Your task to perform on an android device: turn on priority inbox in the gmail app Image 0: 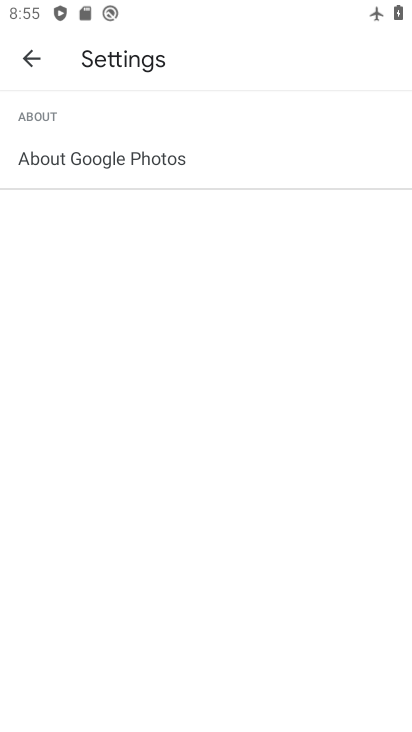
Step 0: press home button
Your task to perform on an android device: turn on priority inbox in the gmail app Image 1: 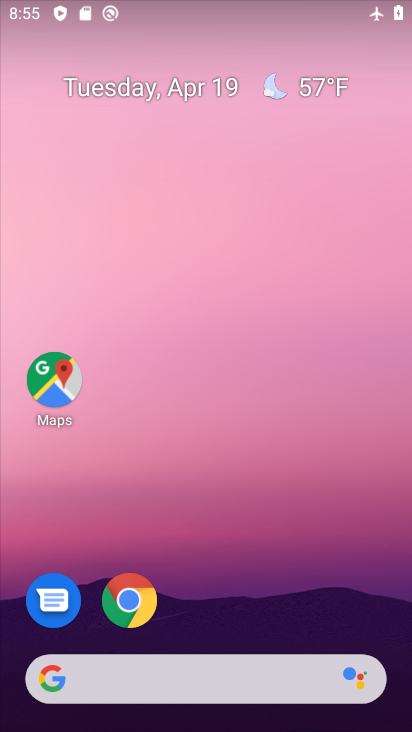
Step 1: drag from (336, 464) to (355, 92)
Your task to perform on an android device: turn on priority inbox in the gmail app Image 2: 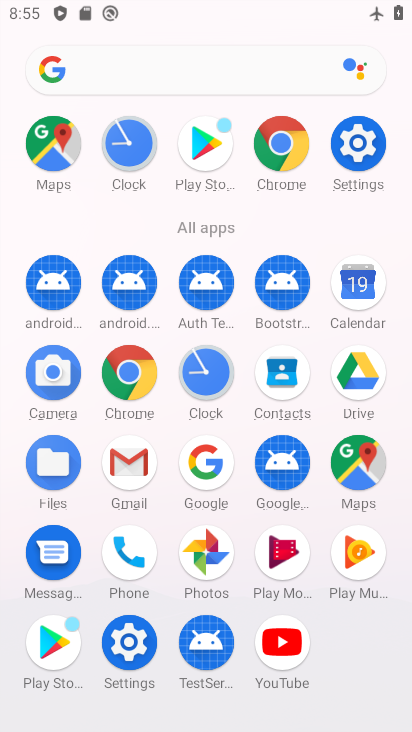
Step 2: click (118, 462)
Your task to perform on an android device: turn on priority inbox in the gmail app Image 3: 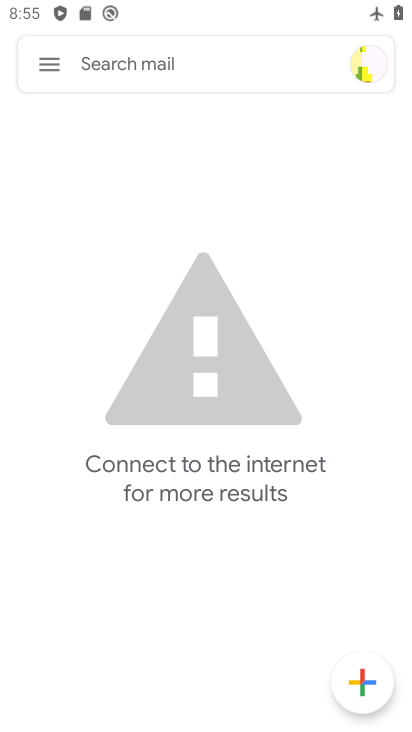
Step 3: click (44, 62)
Your task to perform on an android device: turn on priority inbox in the gmail app Image 4: 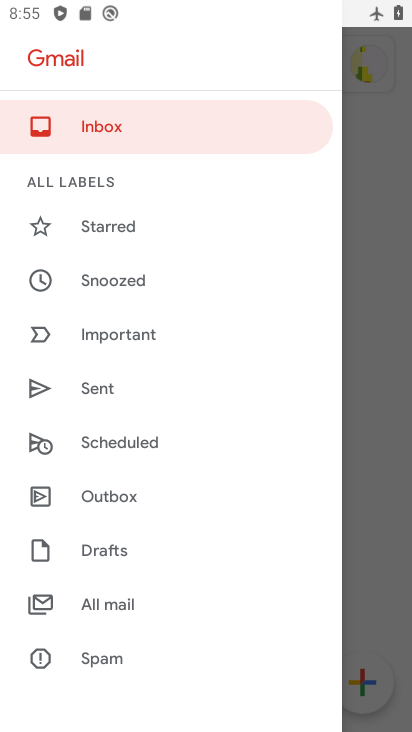
Step 4: drag from (278, 531) to (273, 324)
Your task to perform on an android device: turn on priority inbox in the gmail app Image 5: 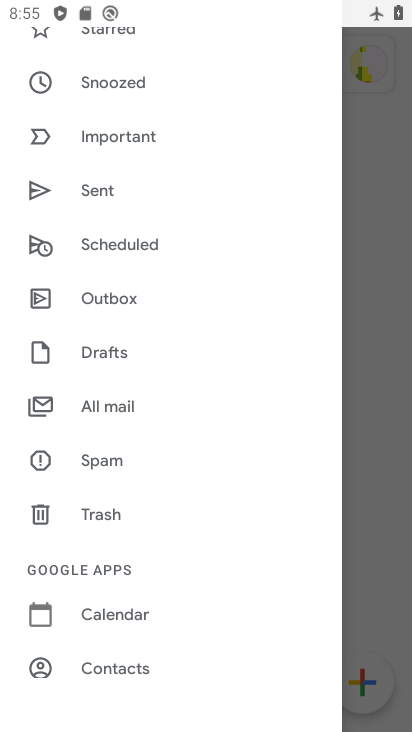
Step 5: drag from (257, 536) to (275, 287)
Your task to perform on an android device: turn on priority inbox in the gmail app Image 6: 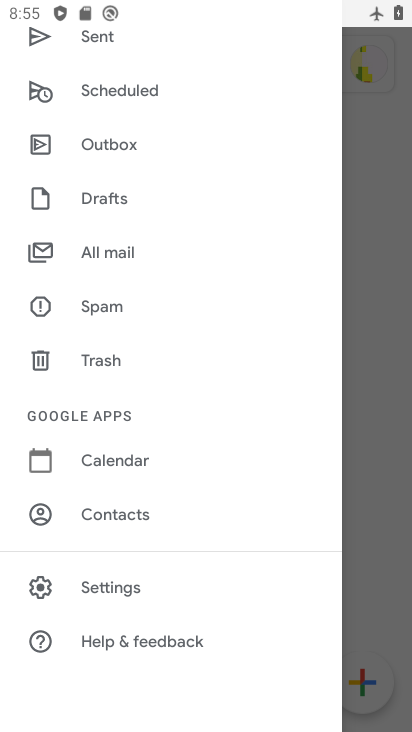
Step 6: click (129, 593)
Your task to perform on an android device: turn on priority inbox in the gmail app Image 7: 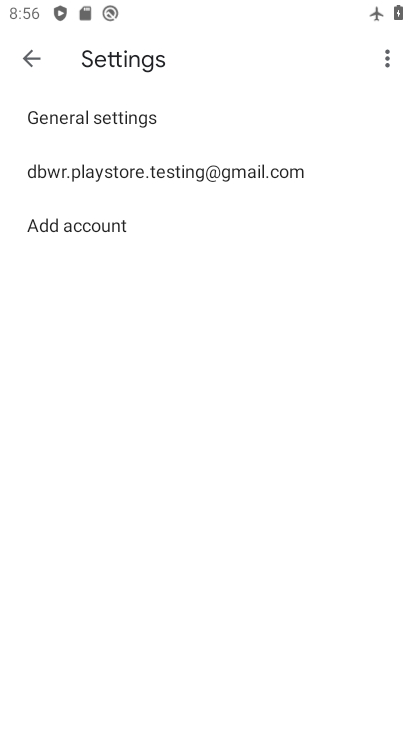
Step 7: click (226, 172)
Your task to perform on an android device: turn on priority inbox in the gmail app Image 8: 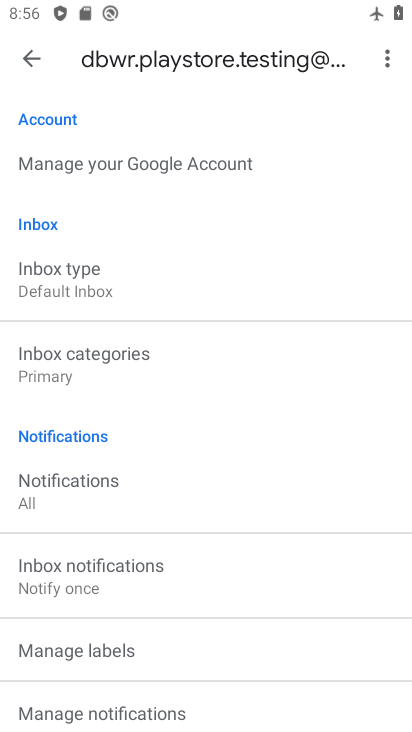
Step 8: drag from (306, 558) to (349, 334)
Your task to perform on an android device: turn on priority inbox in the gmail app Image 9: 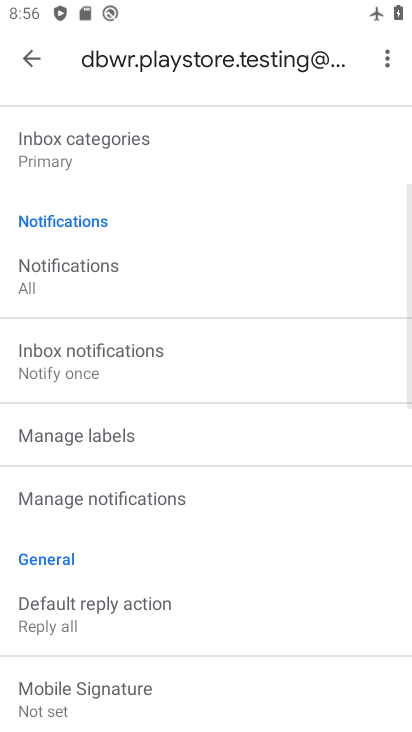
Step 9: drag from (345, 593) to (355, 345)
Your task to perform on an android device: turn on priority inbox in the gmail app Image 10: 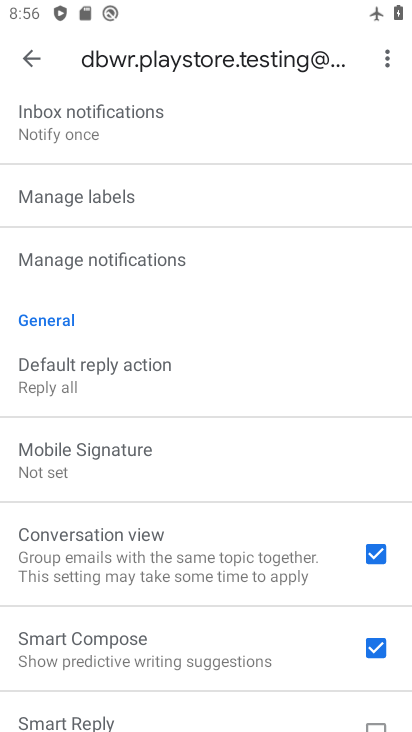
Step 10: drag from (319, 642) to (332, 411)
Your task to perform on an android device: turn on priority inbox in the gmail app Image 11: 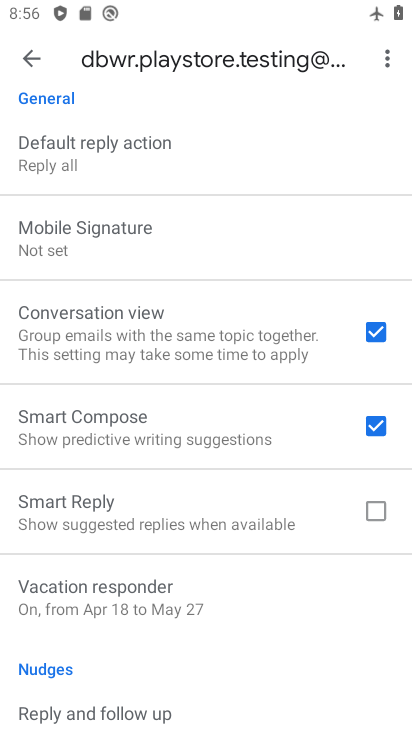
Step 11: drag from (322, 649) to (314, 347)
Your task to perform on an android device: turn on priority inbox in the gmail app Image 12: 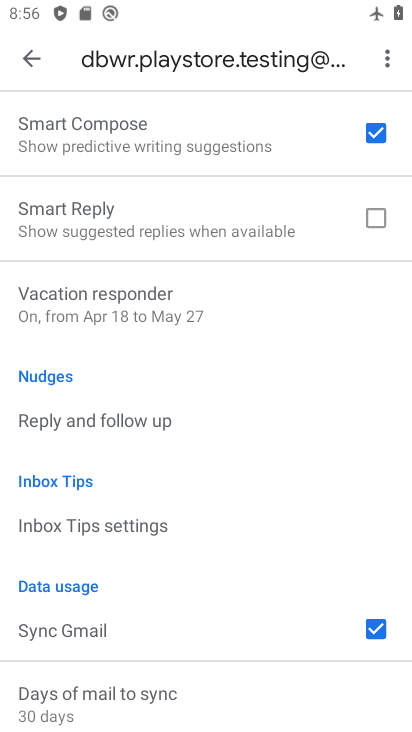
Step 12: drag from (317, 303) to (296, 489)
Your task to perform on an android device: turn on priority inbox in the gmail app Image 13: 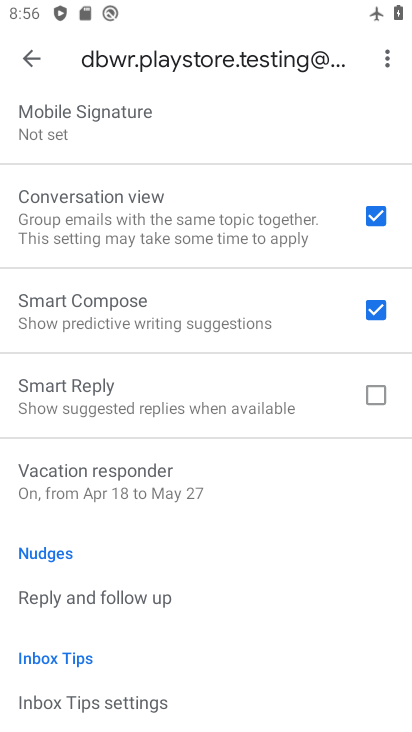
Step 13: drag from (320, 287) to (310, 490)
Your task to perform on an android device: turn on priority inbox in the gmail app Image 14: 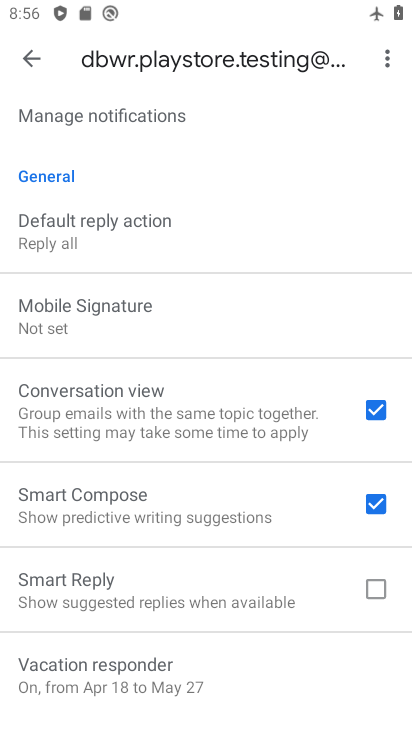
Step 14: drag from (328, 250) to (331, 461)
Your task to perform on an android device: turn on priority inbox in the gmail app Image 15: 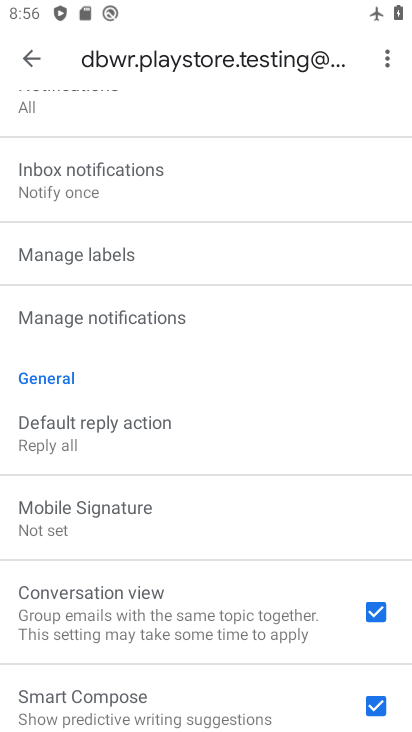
Step 15: drag from (303, 176) to (292, 451)
Your task to perform on an android device: turn on priority inbox in the gmail app Image 16: 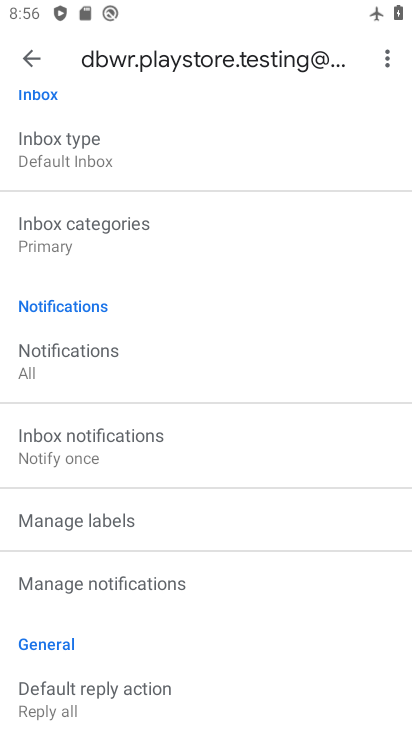
Step 16: click (46, 132)
Your task to perform on an android device: turn on priority inbox in the gmail app Image 17: 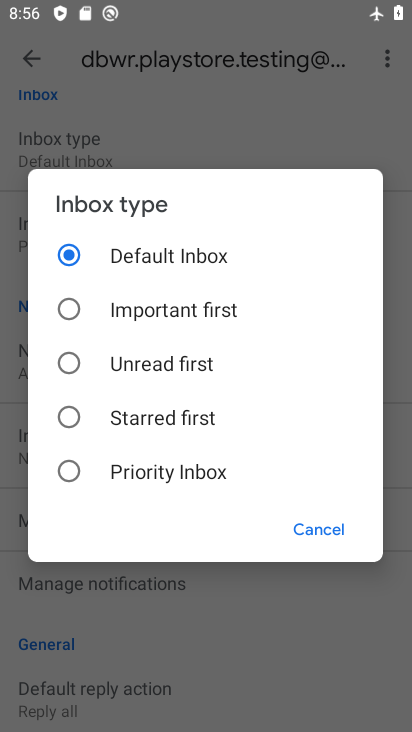
Step 17: click (62, 475)
Your task to perform on an android device: turn on priority inbox in the gmail app Image 18: 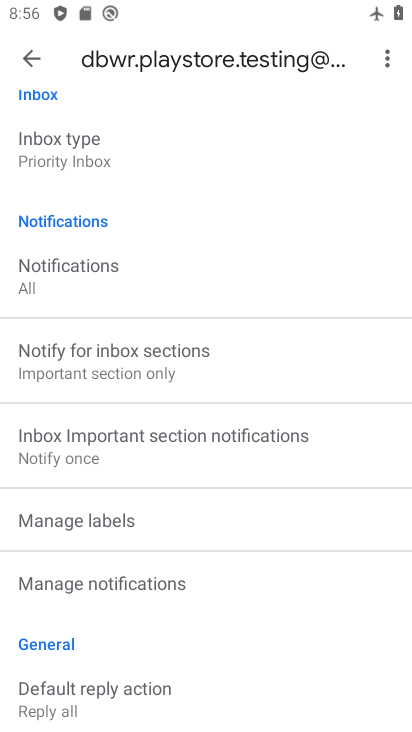
Step 18: task complete